Your task to perform on an android device: What's on my calendar today? Image 0: 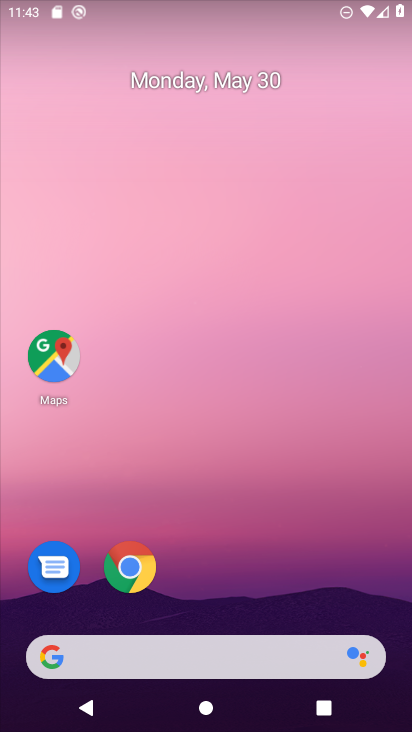
Step 0: drag from (284, 477) to (18, 32)
Your task to perform on an android device: What's on my calendar today? Image 1: 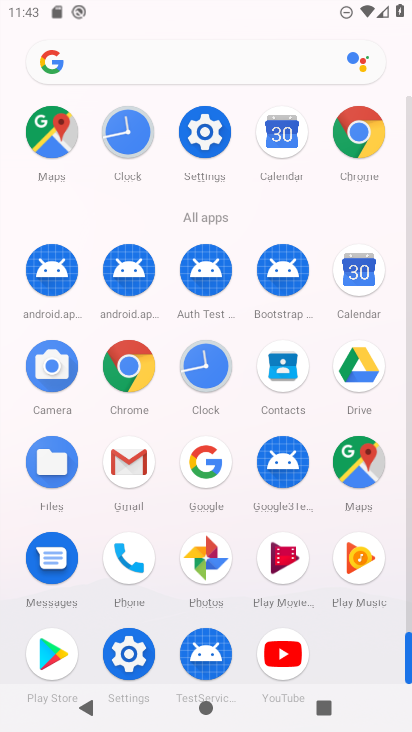
Step 1: drag from (15, 292) to (21, 125)
Your task to perform on an android device: What's on my calendar today? Image 2: 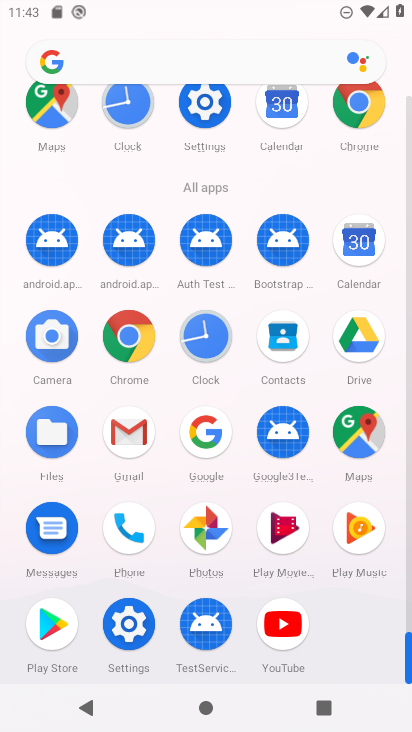
Step 2: click (286, 100)
Your task to perform on an android device: What's on my calendar today? Image 3: 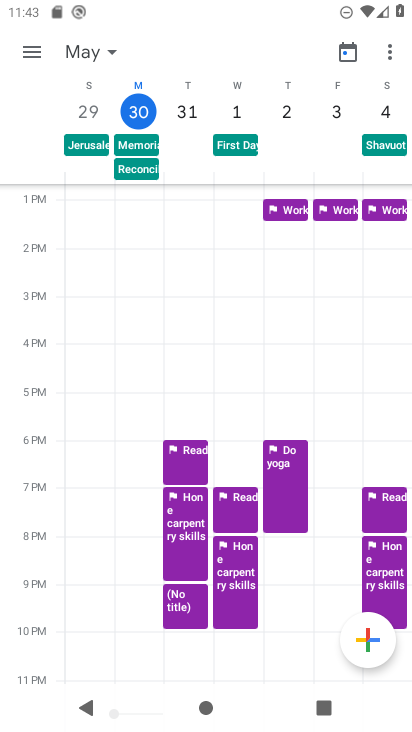
Step 3: click (28, 58)
Your task to perform on an android device: What's on my calendar today? Image 4: 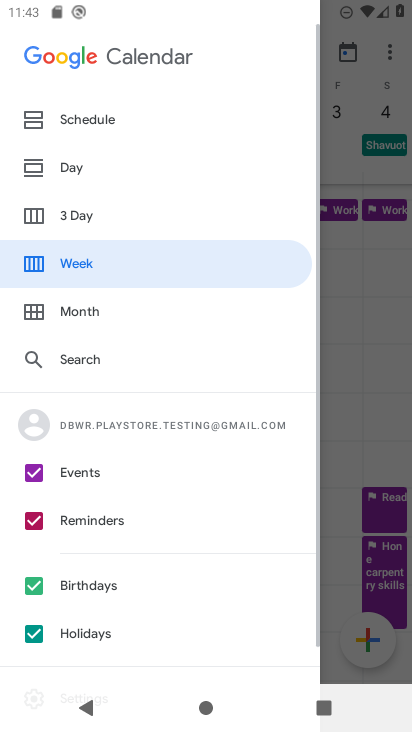
Step 4: click (84, 162)
Your task to perform on an android device: What's on my calendar today? Image 5: 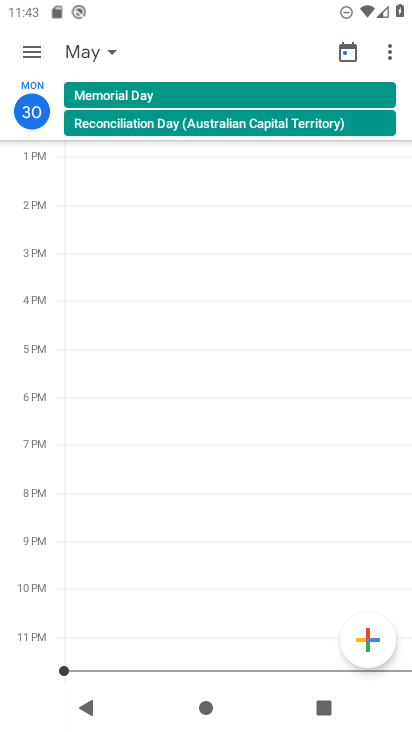
Step 5: click (357, 50)
Your task to perform on an android device: What's on my calendar today? Image 6: 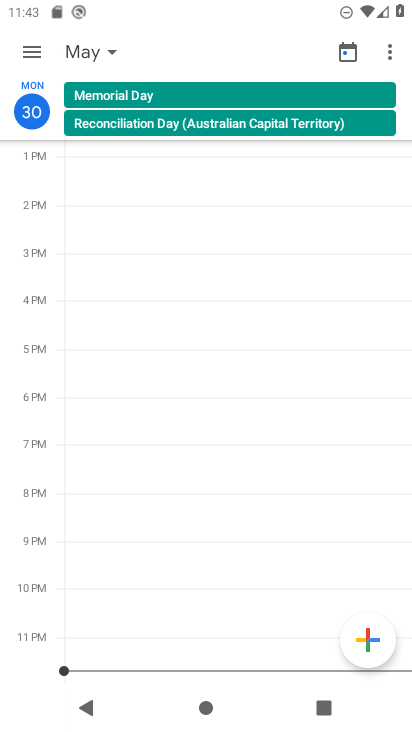
Step 6: task complete